Your task to perform on an android device: Do I have any events tomorrow? Image 0: 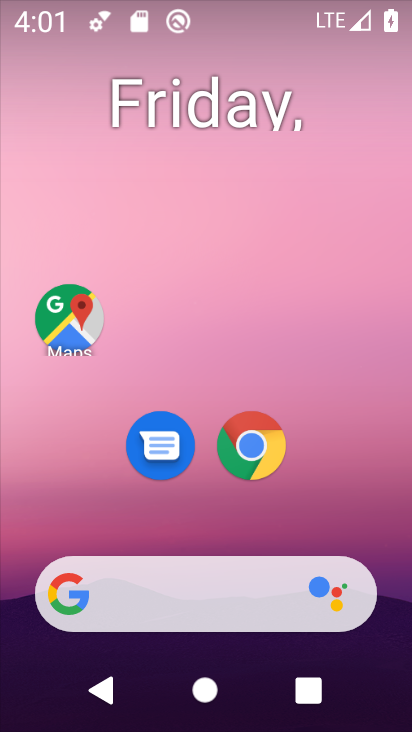
Step 0: drag from (393, 551) to (294, 78)
Your task to perform on an android device: Do I have any events tomorrow? Image 1: 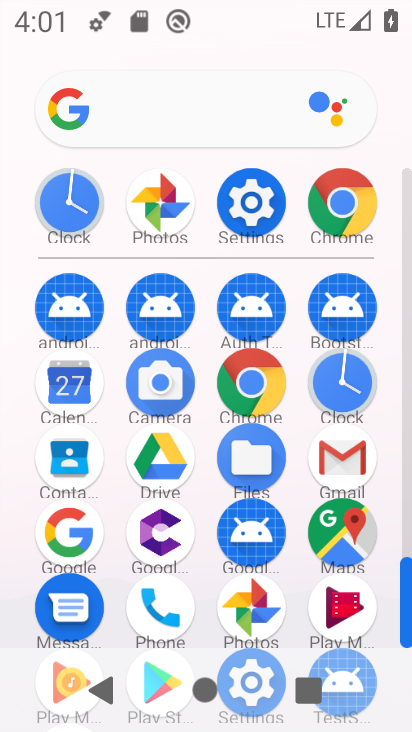
Step 1: click (61, 398)
Your task to perform on an android device: Do I have any events tomorrow? Image 2: 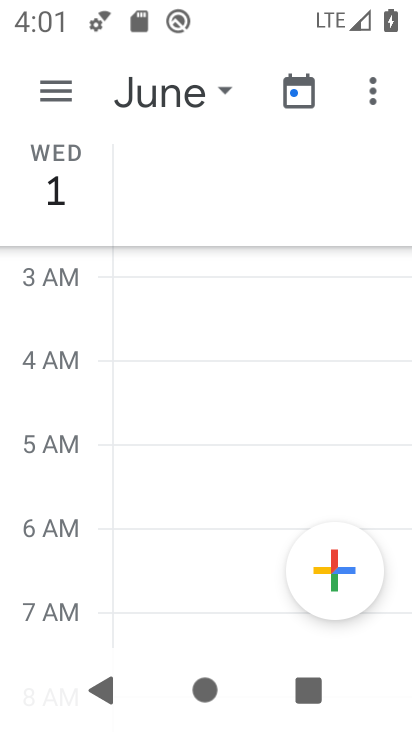
Step 2: click (57, 93)
Your task to perform on an android device: Do I have any events tomorrow? Image 3: 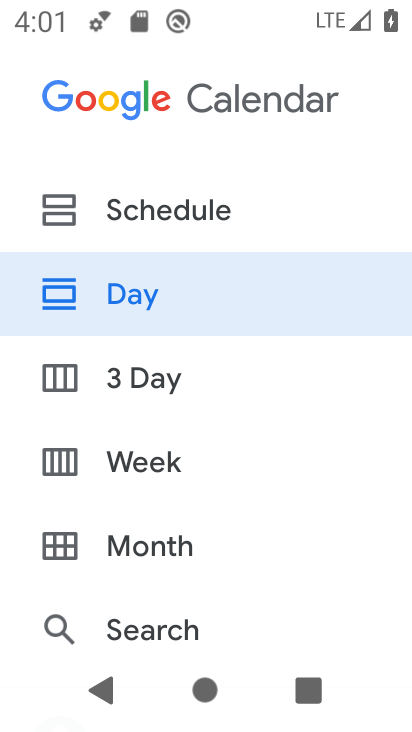
Step 3: drag from (197, 528) to (169, 282)
Your task to perform on an android device: Do I have any events tomorrow? Image 4: 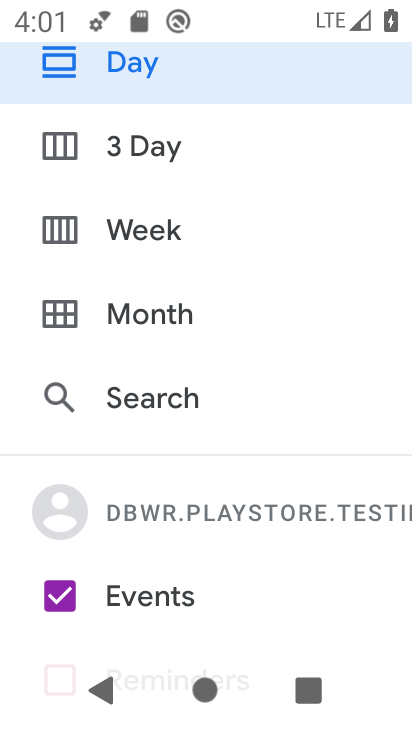
Step 4: drag from (185, 210) to (189, 430)
Your task to perform on an android device: Do I have any events tomorrow? Image 5: 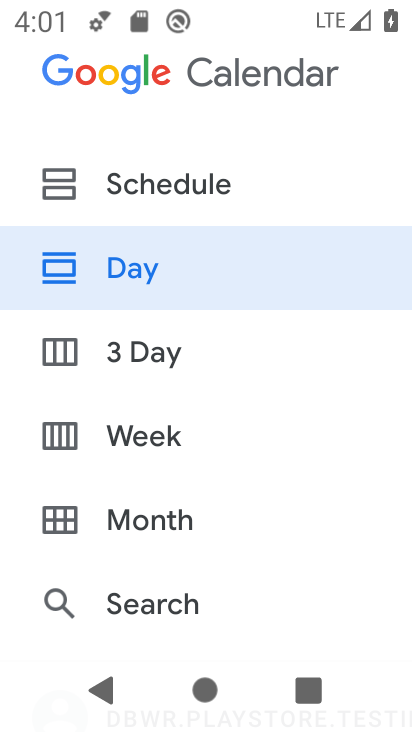
Step 5: click (149, 289)
Your task to perform on an android device: Do I have any events tomorrow? Image 6: 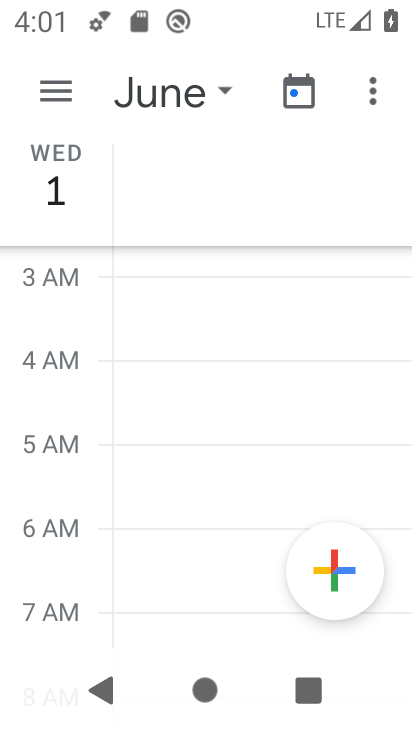
Step 6: click (227, 87)
Your task to perform on an android device: Do I have any events tomorrow? Image 7: 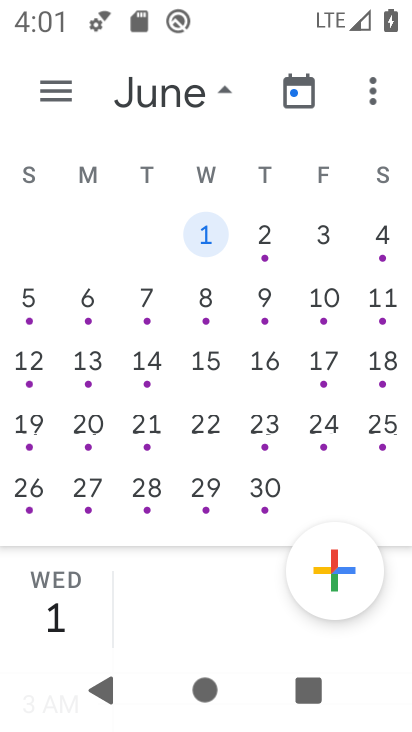
Step 7: drag from (69, 393) to (408, 379)
Your task to perform on an android device: Do I have any events tomorrow? Image 8: 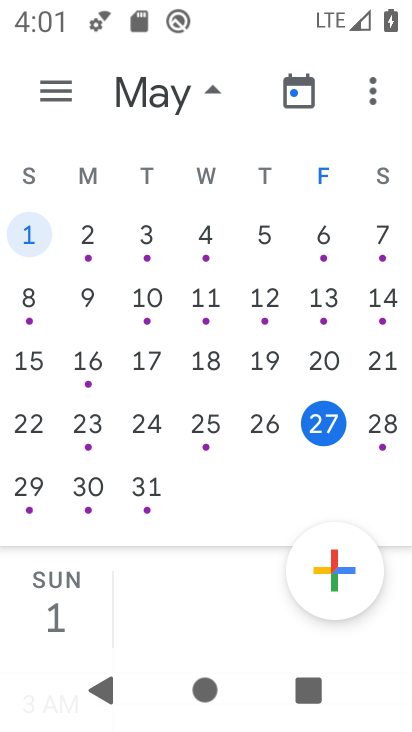
Step 8: click (396, 416)
Your task to perform on an android device: Do I have any events tomorrow? Image 9: 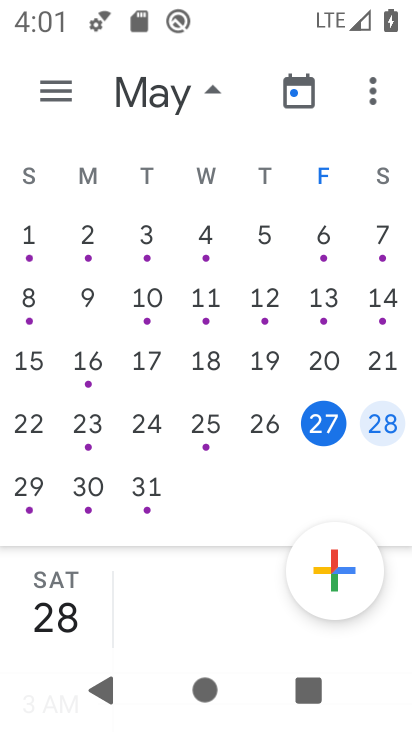
Step 9: click (205, 82)
Your task to perform on an android device: Do I have any events tomorrow? Image 10: 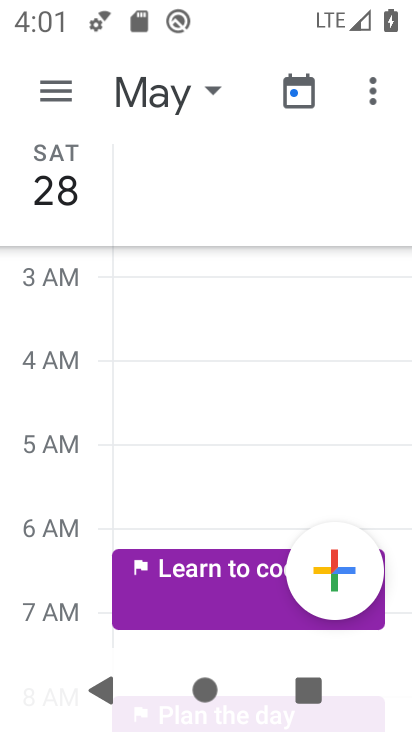
Step 10: task complete